Your task to perform on an android device: Open Youtube and go to "Your channel" Image 0: 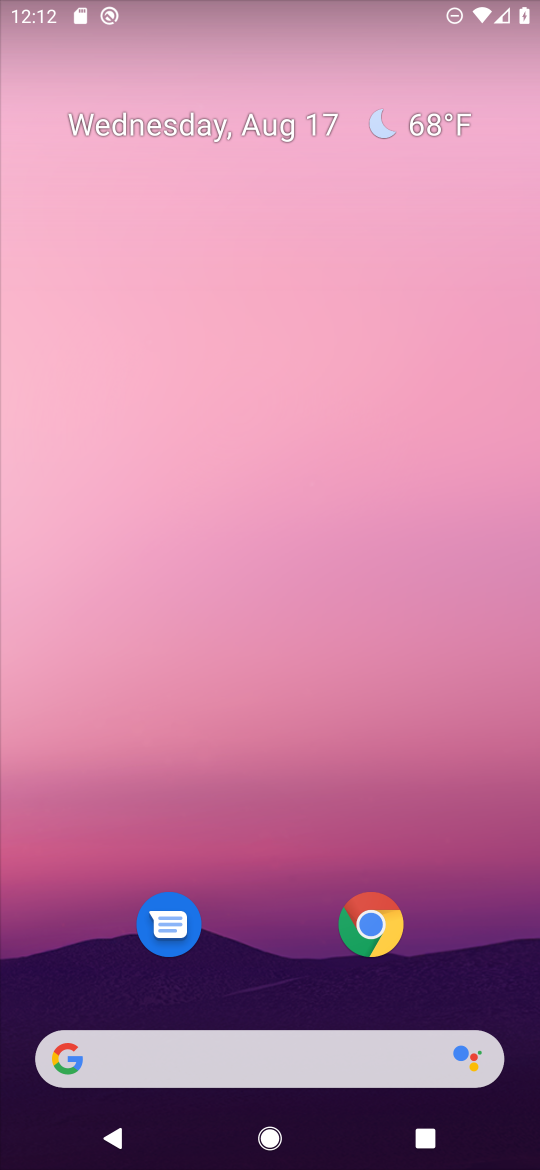
Step 0: drag from (292, 996) to (389, 38)
Your task to perform on an android device: Open Youtube and go to "Your channel" Image 1: 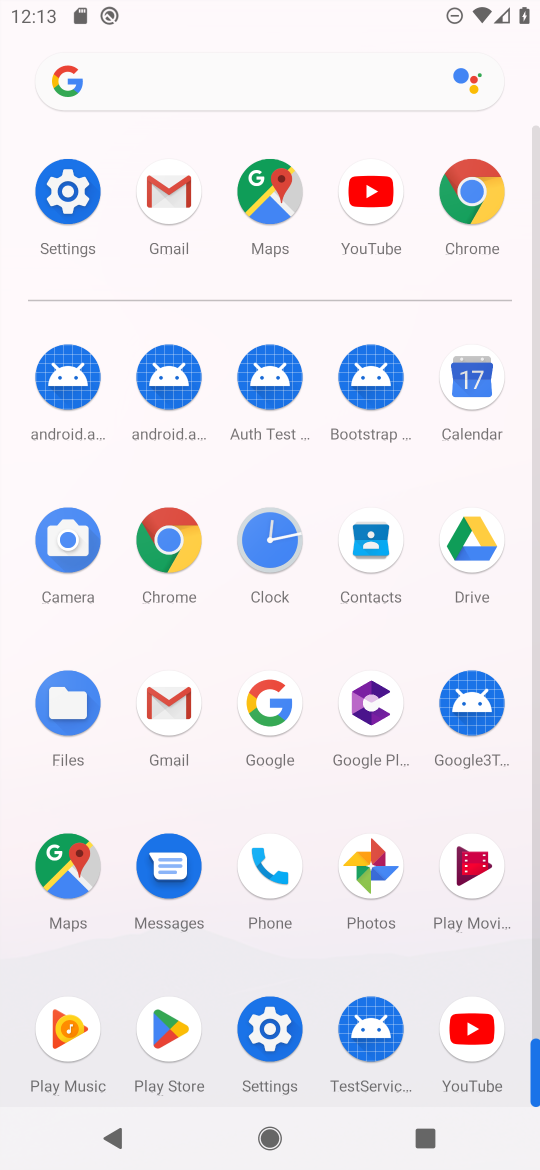
Step 1: click (368, 187)
Your task to perform on an android device: Open Youtube and go to "Your channel" Image 2: 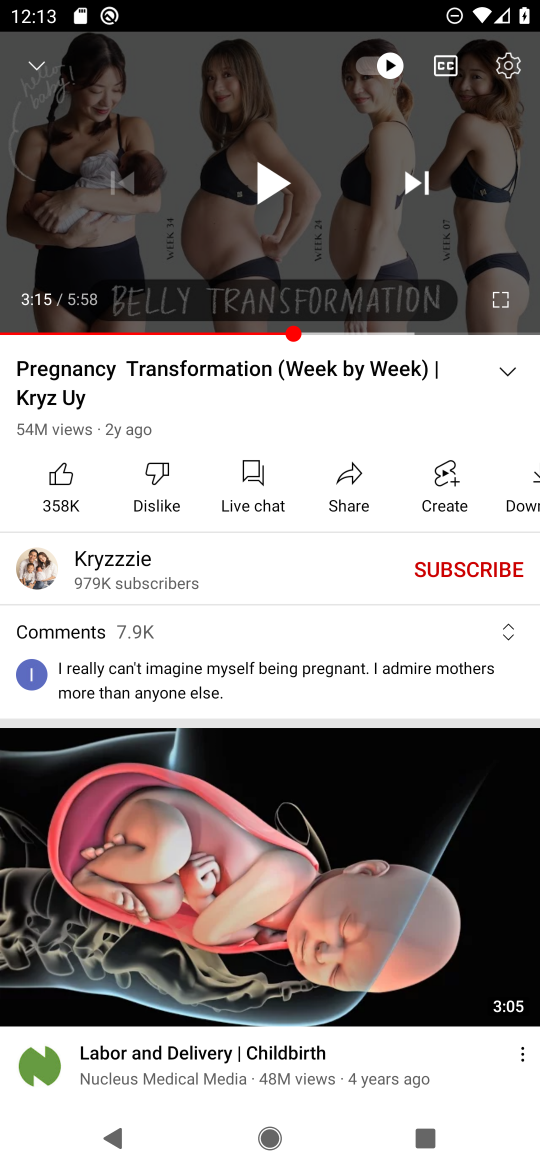
Step 2: click (41, 63)
Your task to perform on an android device: Open Youtube and go to "Your channel" Image 3: 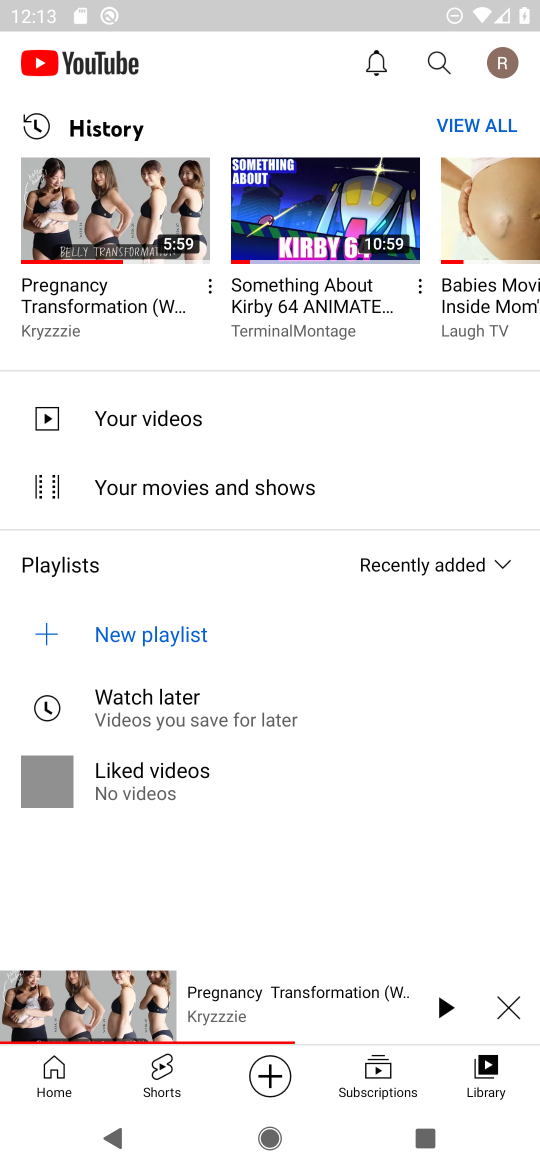
Step 3: click (435, 56)
Your task to perform on an android device: Open Youtube and go to "Your channel" Image 4: 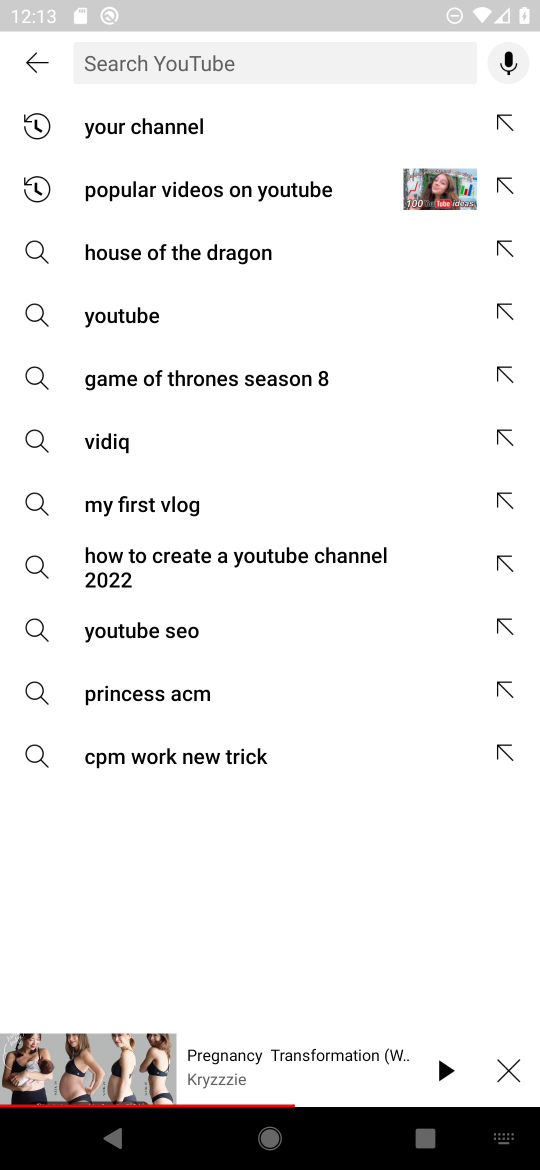
Step 4: click (184, 126)
Your task to perform on an android device: Open Youtube and go to "Your channel" Image 5: 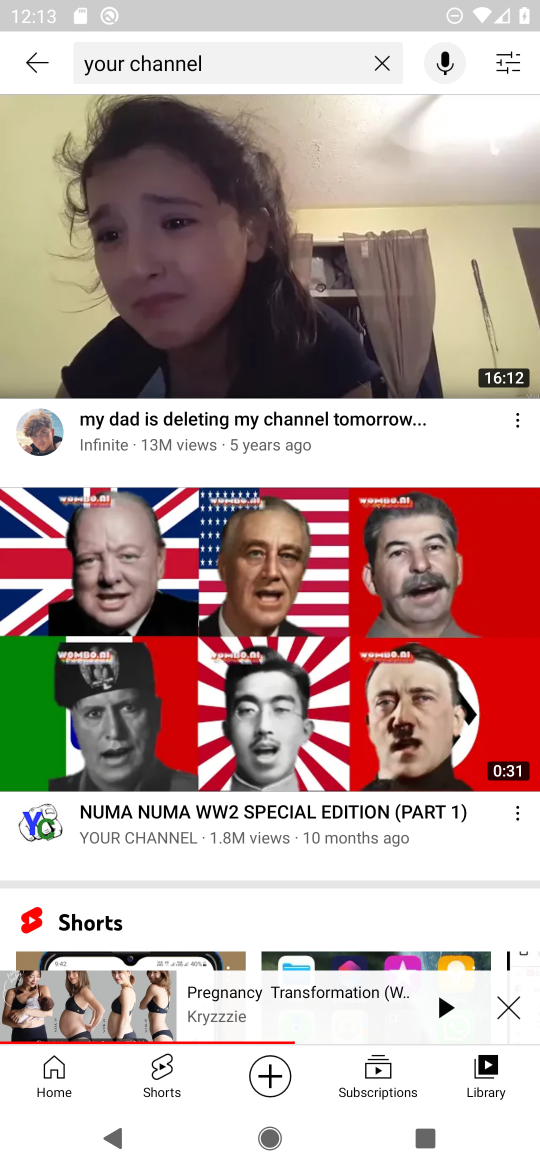
Step 5: task complete